Your task to perform on an android device: turn on notifications settings in the gmail app Image 0: 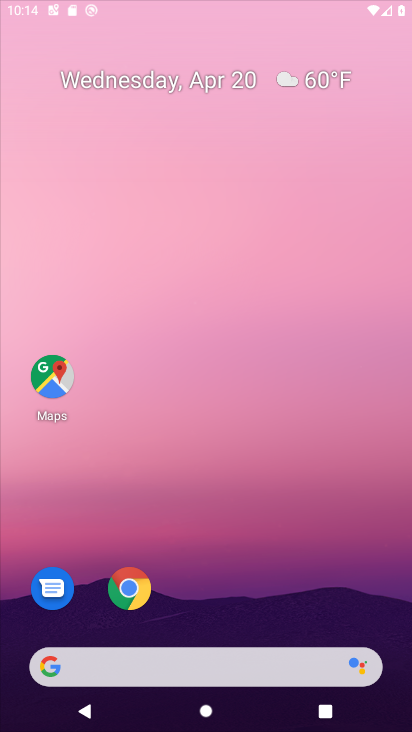
Step 0: click (156, 602)
Your task to perform on an android device: turn on notifications settings in the gmail app Image 1: 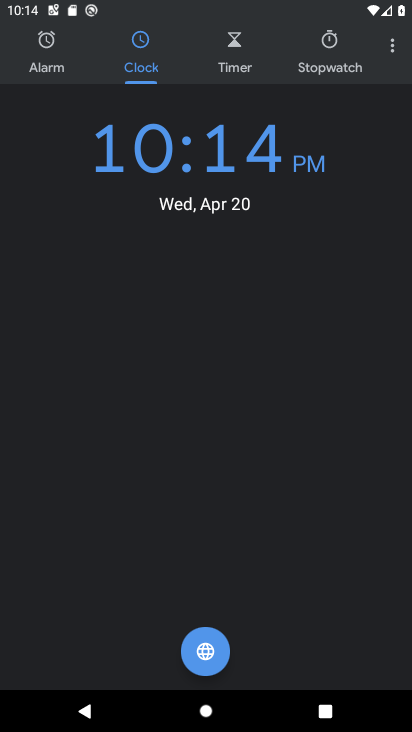
Step 1: press home button
Your task to perform on an android device: turn on notifications settings in the gmail app Image 2: 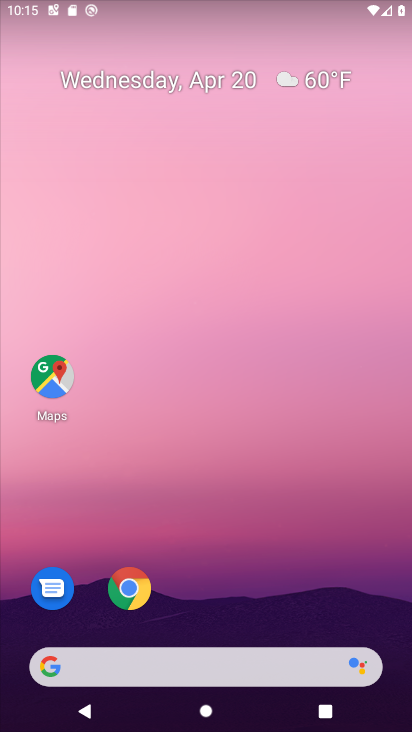
Step 2: drag from (195, 642) to (157, 163)
Your task to perform on an android device: turn on notifications settings in the gmail app Image 3: 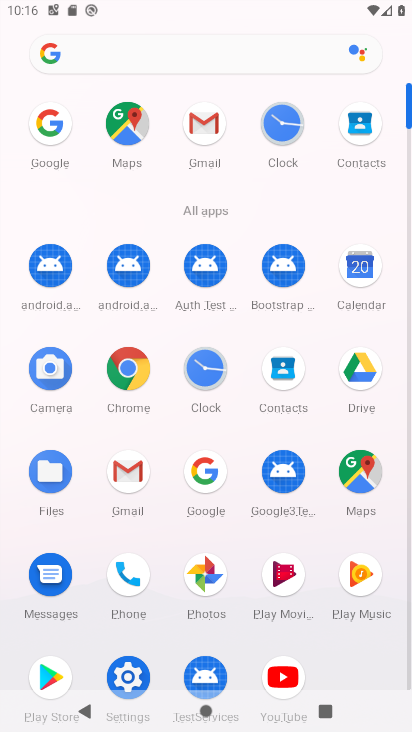
Step 3: click (145, 486)
Your task to perform on an android device: turn on notifications settings in the gmail app Image 4: 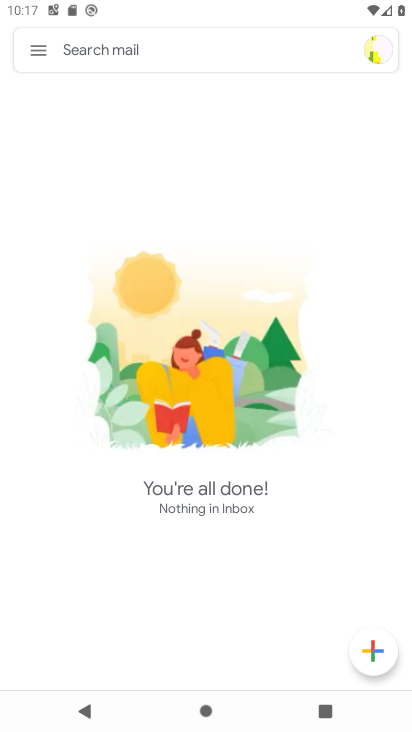
Step 4: click (44, 59)
Your task to perform on an android device: turn on notifications settings in the gmail app Image 5: 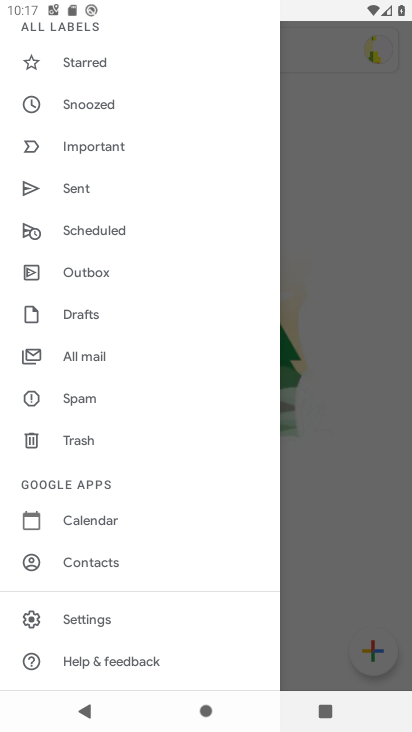
Step 5: click (99, 613)
Your task to perform on an android device: turn on notifications settings in the gmail app Image 6: 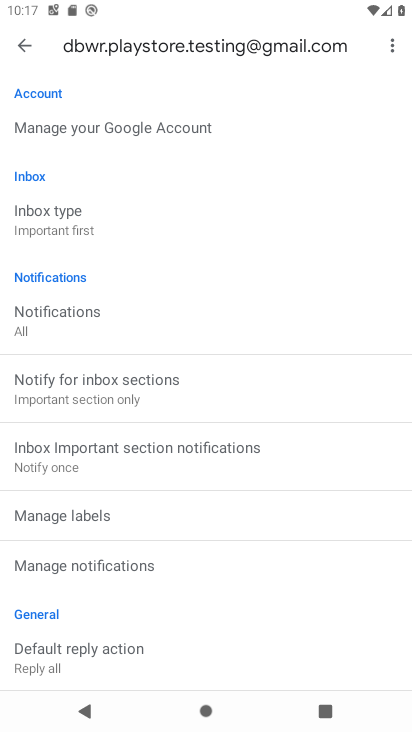
Step 6: click (84, 567)
Your task to perform on an android device: turn on notifications settings in the gmail app Image 7: 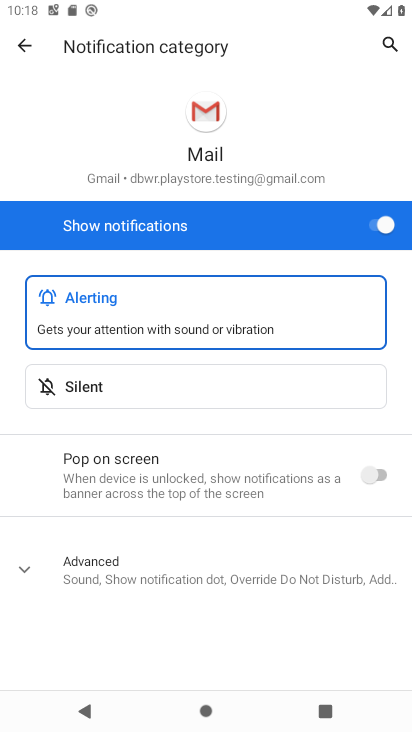
Step 7: click (382, 228)
Your task to perform on an android device: turn on notifications settings in the gmail app Image 8: 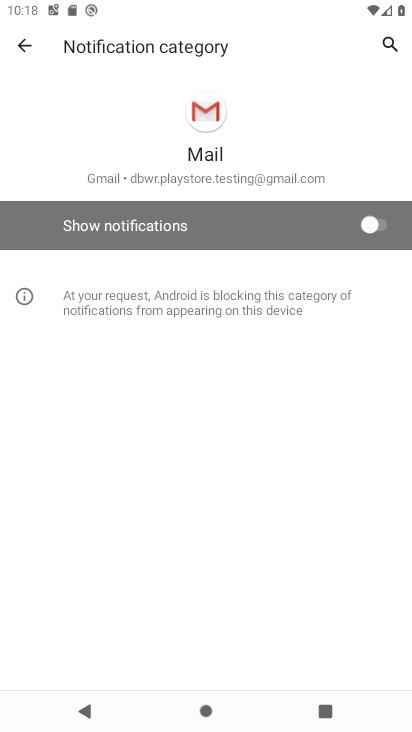
Step 8: task complete